Your task to perform on an android device: Play the last video I watched on Youtube Image 0: 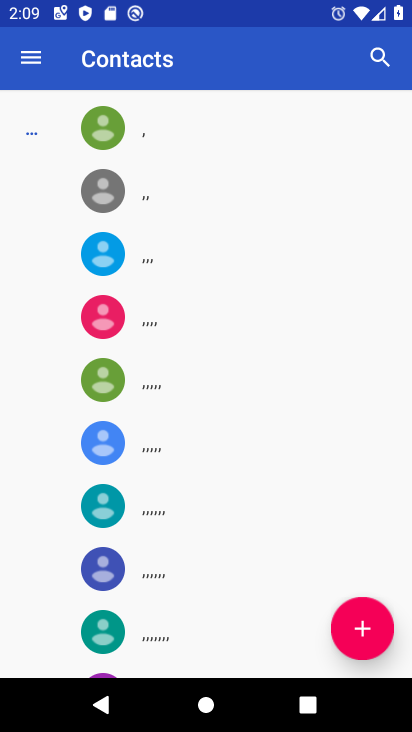
Step 0: press home button
Your task to perform on an android device: Play the last video I watched on Youtube Image 1: 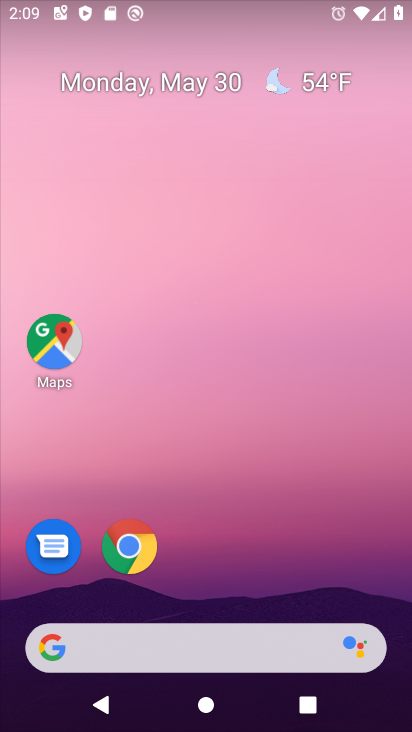
Step 1: drag from (231, 587) to (269, 10)
Your task to perform on an android device: Play the last video I watched on Youtube Image 2: 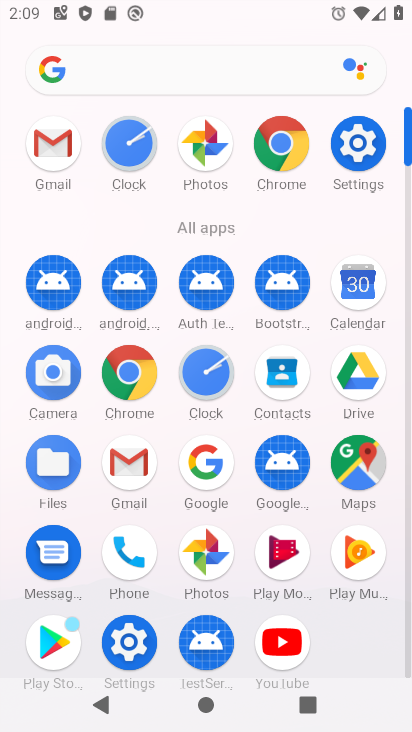
Step 2: click (276, 633)
Your task to perform on an android device: Play the last video I watched on Youtube Image 3: 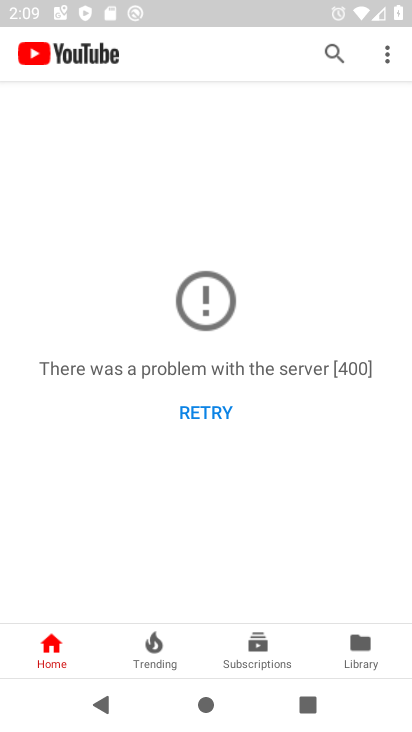
Step 3: click (359, 647)
Your task to perform on an android device: Play the last video I watched on Youtube Image 4: 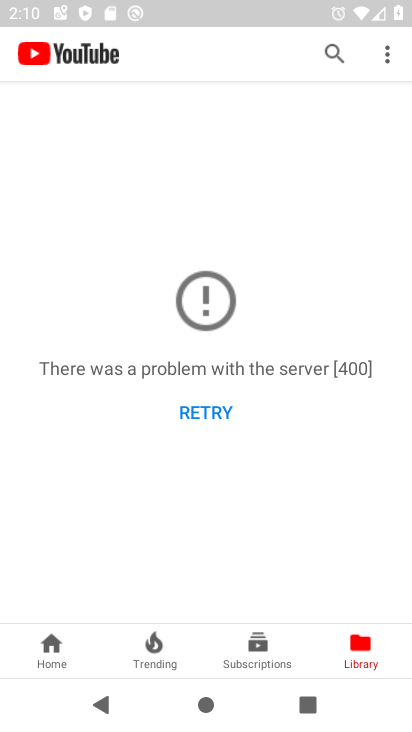
Step 4: task complete